Your task to perform on an android device: turn on bluetooth scan Image 0: 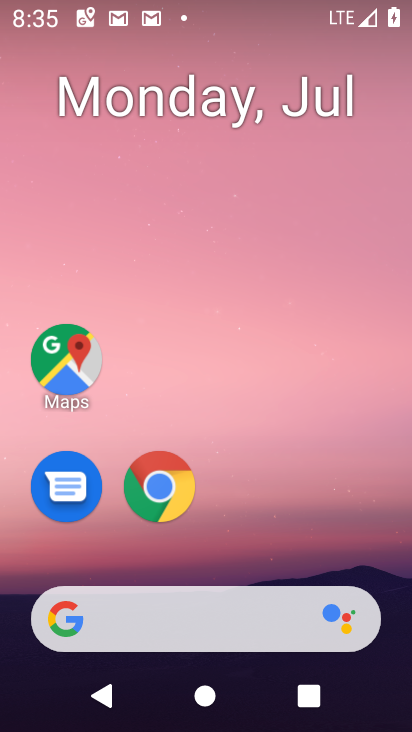
Step 0: drag from (347, 546) to (410, 326)
Your task to perform on an android device: turn on bluetooth scan Image 1: 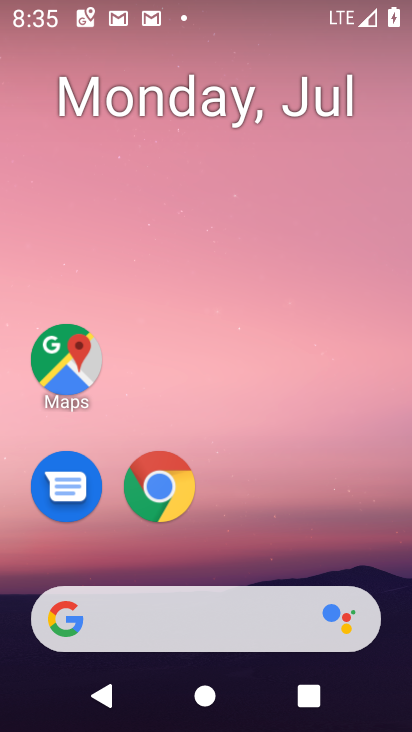
Step 1: drag from (355, 512) to (336, 80)
Your task to perform on an android device: turn on bluetooth scan Image 2: 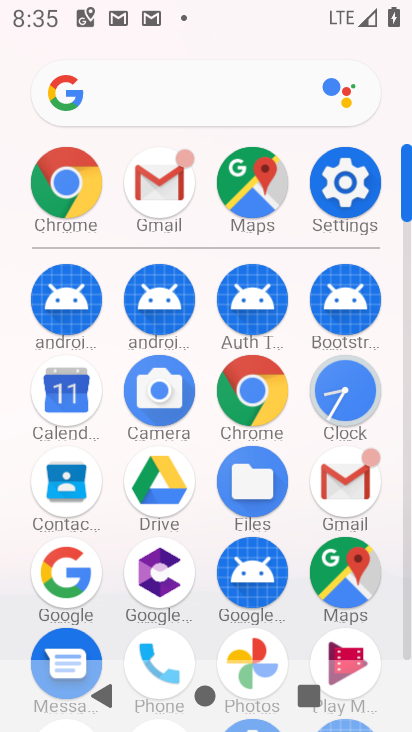
Step 2: click (346, 196)
Your task to perform on an android device: turn on bluetooth scan Image 3: 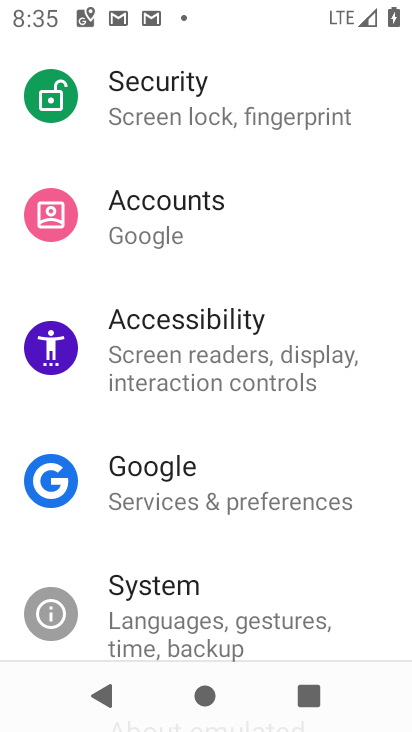
Step 3: drag from (369, 423) to (346, 237)
Your task to perform on an android device: turn on bluetooth scan Image 4: 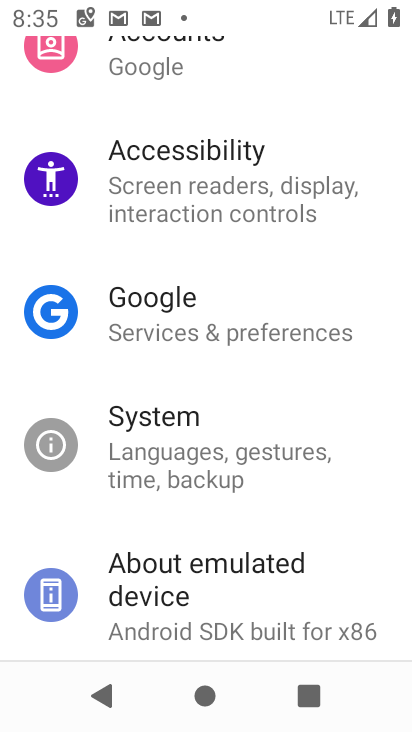
Step 4: drag from (359, 496) to (350, 334)
Your task to perform on an android device: turn on bluetooth scan Image 5: 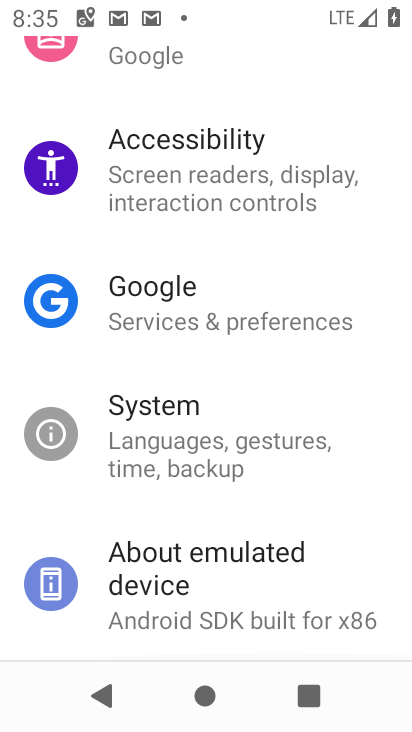
Step 5: drag from (354, 248) to (329, 458)
Your task to perform on an android device: turn on bluetooth scan Image 6: 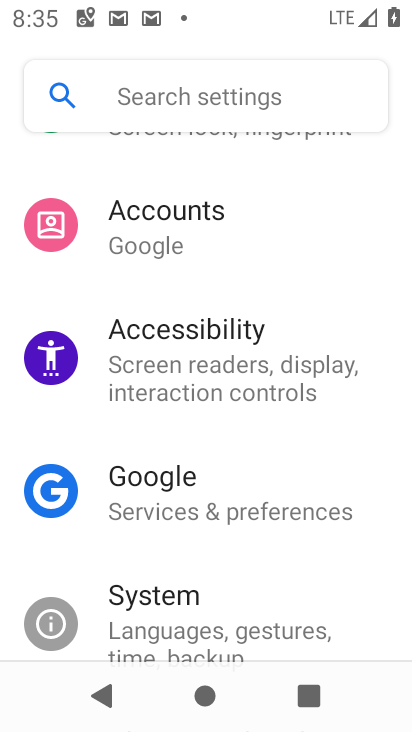
Step 6: drag from (354, 204) to (357, 429)
Your task to perform on an android device: turn on bluetooth scan Image 7: 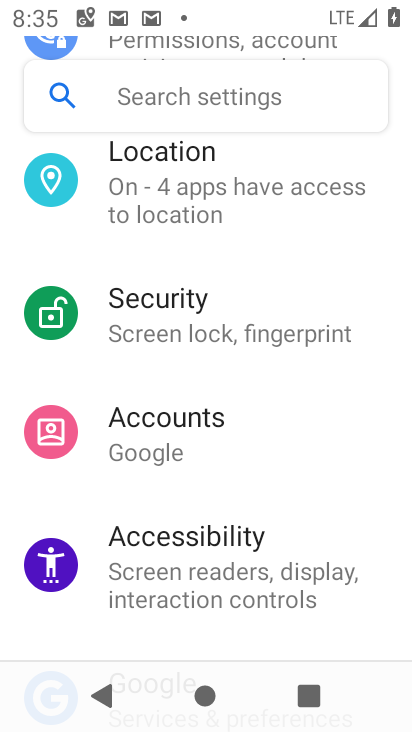
Step 7: drag from (383, 157) to (372, 364)
Your task to perform on an android device: turn on bluetooth scan Image 8: 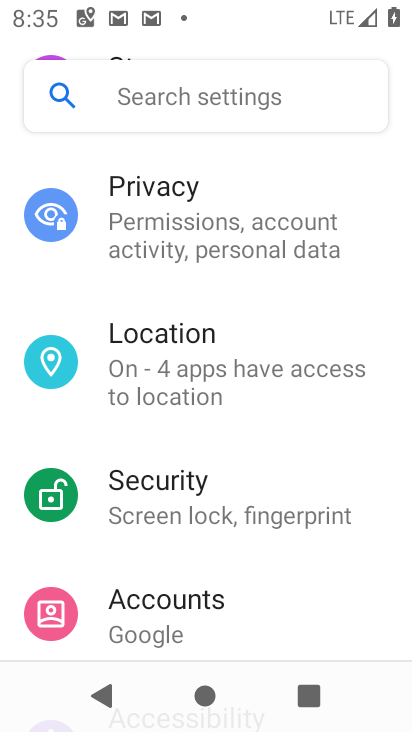
Step 8: drag from (370, 179) to (369, 362)
Your task to perform on an android device: turn on bluetooth scan Image 9: 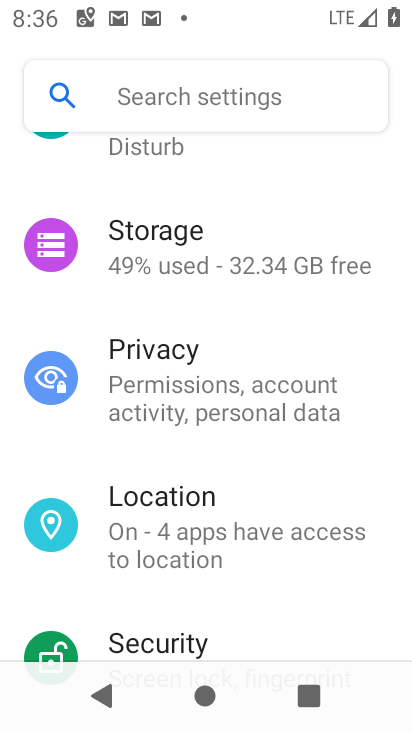
Step 9: click (242, 526)
Your task to perform on an android device: turn on bluetooth scan Image 10: 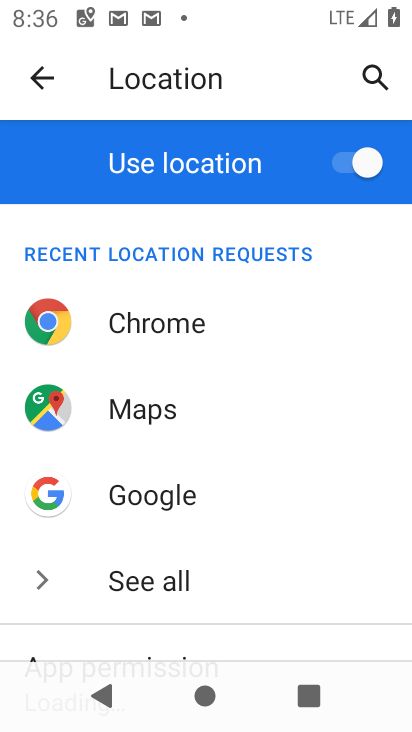
Step 10: drag from (274, 530) to (300, 260)
Your task to perform on an android device: turn on bluetooth scan Image 11: 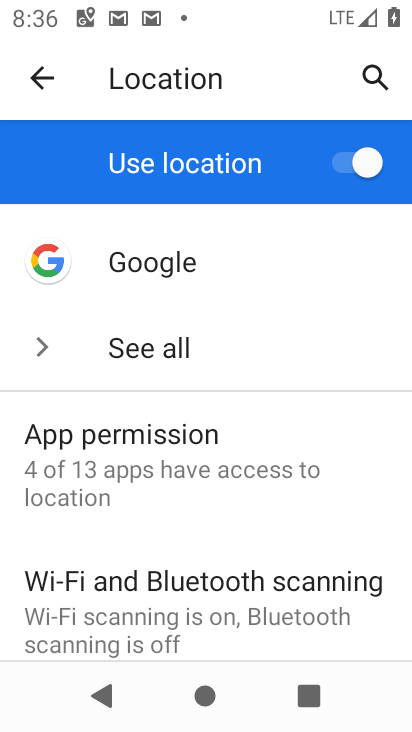
Step 11: drag from (332, 505) to (337, 290)
Your task to perform on an android device: turn on bluetooth scan Image 12: 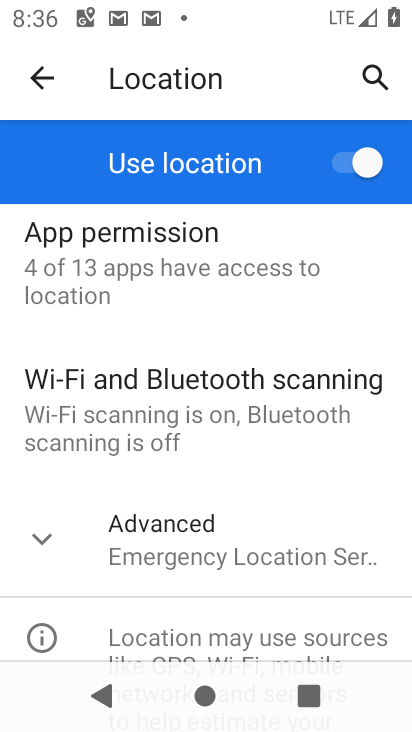
Step 12: click (294, 406)
Your task to perform on an android device: turn on bluetooth scan Image 13: 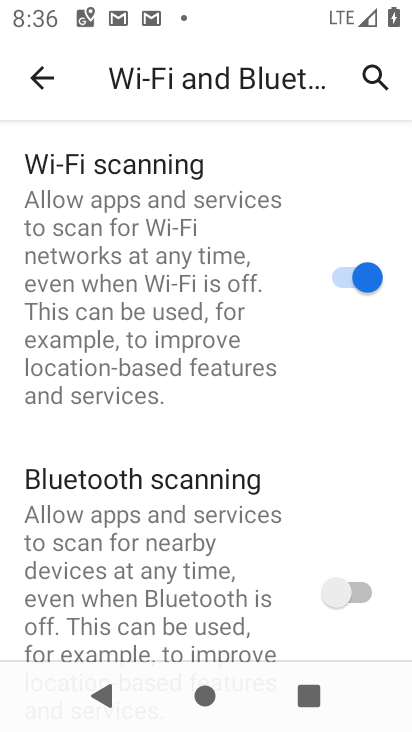
Step 13: drag from (302, 503) to (301, 317)
Your task to perform on an android device: turn on bluetooth scan Image 14: 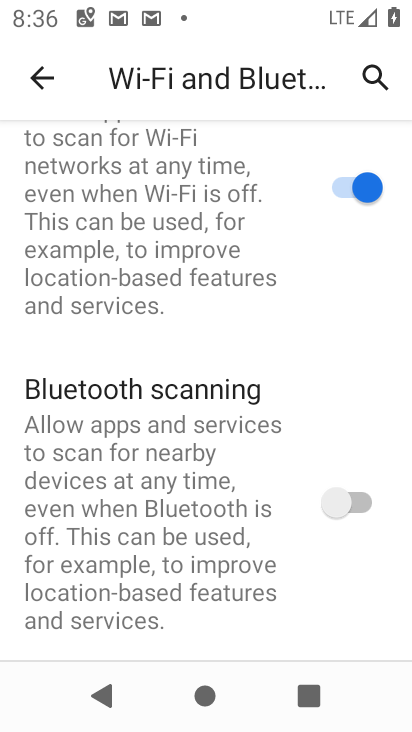
Step 14: click (341, 506)
Your task to perform on an android device: turn on bluetooth scan Image 15: 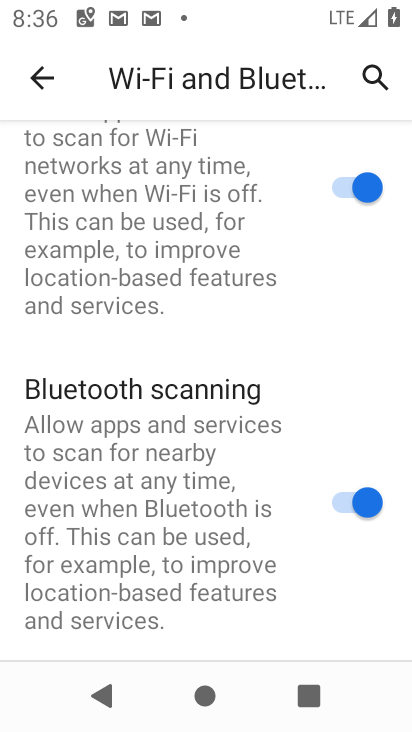
Step 15: task complete